Your task to perform on an android device: change timer sound Image 0: 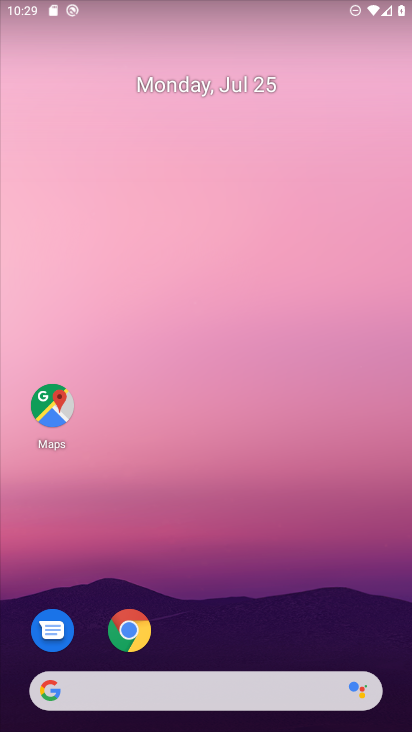
Step 0: drag from (322, 578) to (264, 33)
Your task to perform on an android device: change timer sound Image 1: 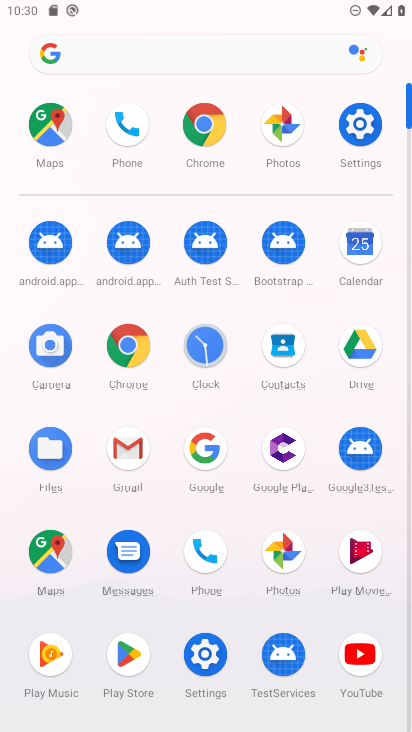
Step 1: click (203, 341)
Your task to perform on an android device: change timer sound Image 2: 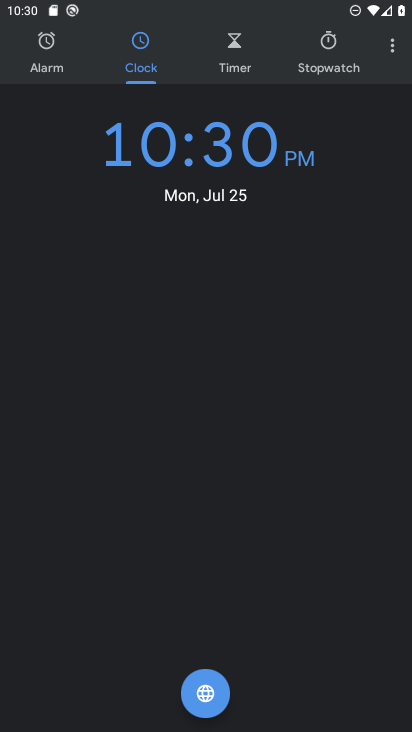
Step 2: click (399, 60)
Your task to perform on an android device: change timer sound Image 3: 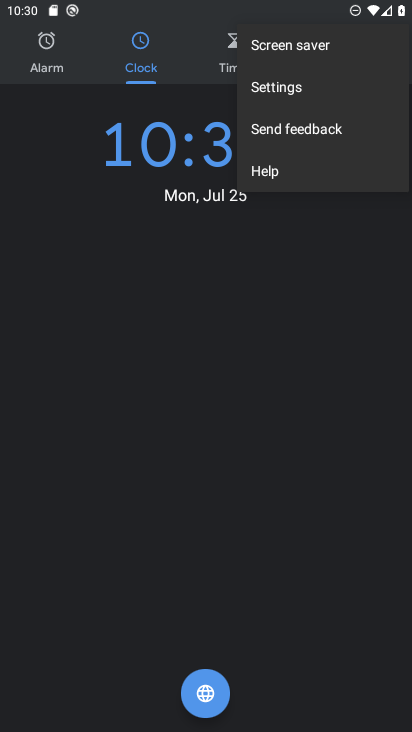
Step 3: click (321, 97)
Your task to perform on an android device: change timer sound Image 4: 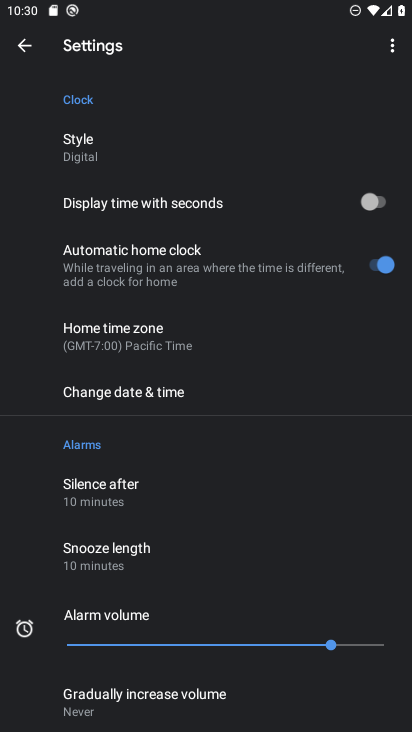
Step 4: drag from (221, 613) to (260, 310)
Your task to perform on an android device: change timer sound Image 5: 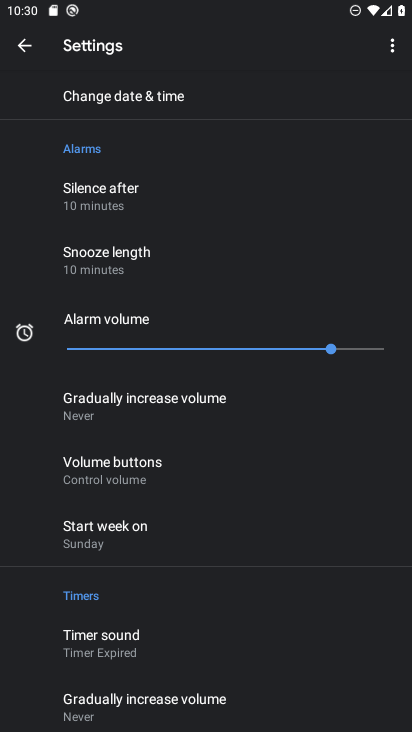
Step 5: drag from (258, 621) to (286, 389)
Your task to perform on an android device: change timer sound Image 6: 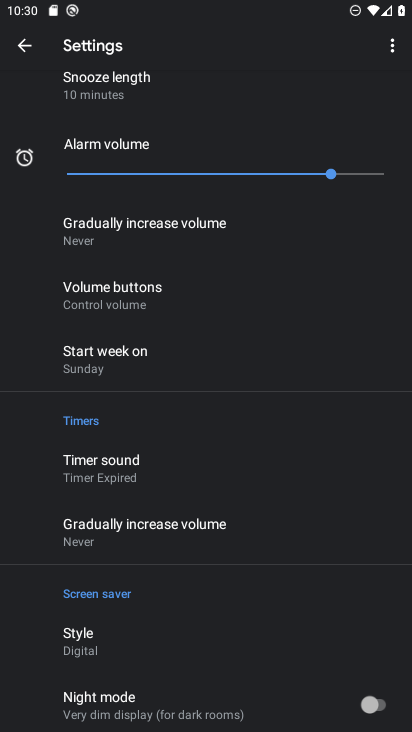
Step 6: click (119, 464)
Your task to perform on an android device: change timer sound Image 7: 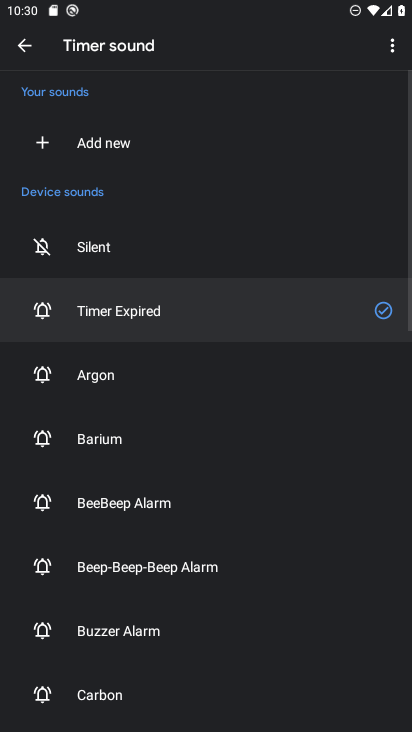
Step 7: click (155, 366)
Your task to perform on an android device: change timer sound Image 8: 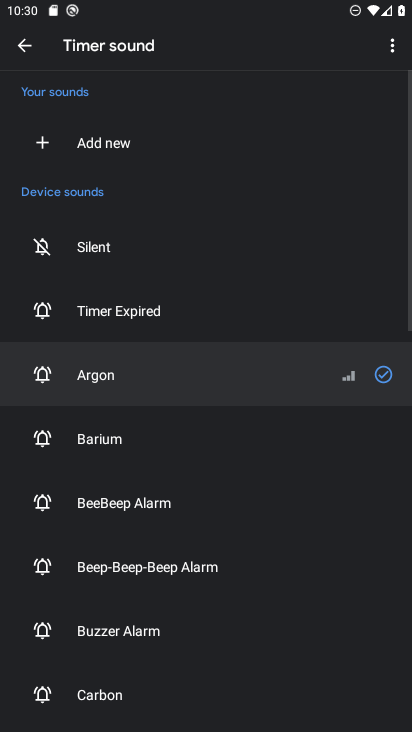
Step 8: task complete